Your task to perform on an android device: Search for custom made wallets on etsy.com Image 0: 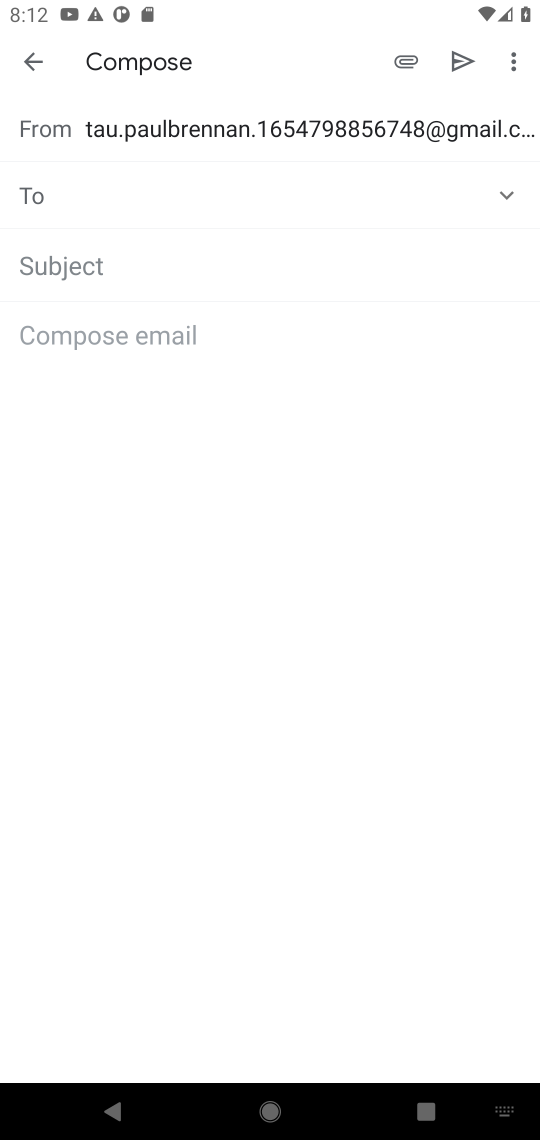
Step 0: task complete